Your task to perform on an android device: turn off translation in the chrome app Image 0: 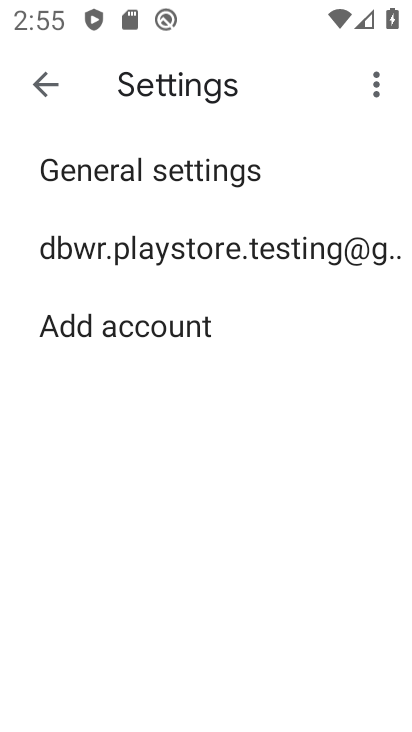
Step 0: press home button
Your task to perform on an android device: turn off translation in the chrome app Image 1: 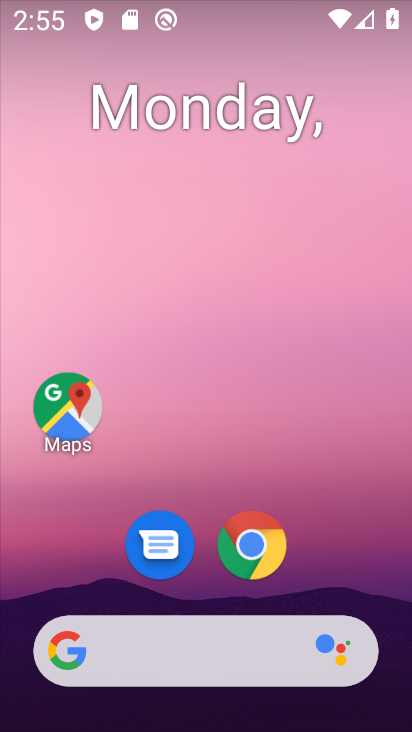
Step 1: click (269, 539)
Your task to perform on an android device: turn off translation in the chrome app Image 2: 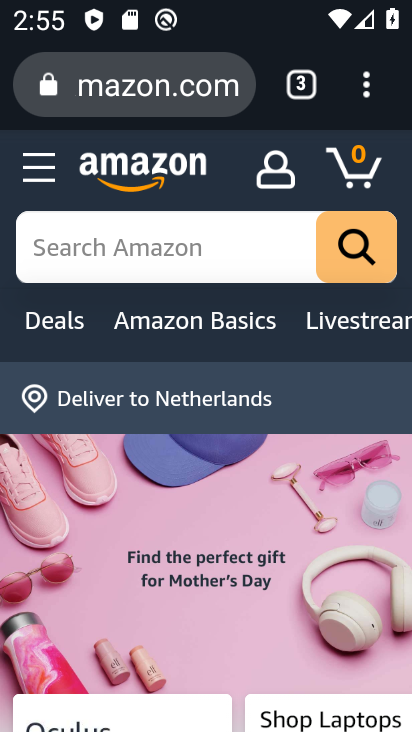
Step 2: drag from (370, 84) to (138, 594)
Your task to perform on an android device: turn off translation in the chrome app Image 3: 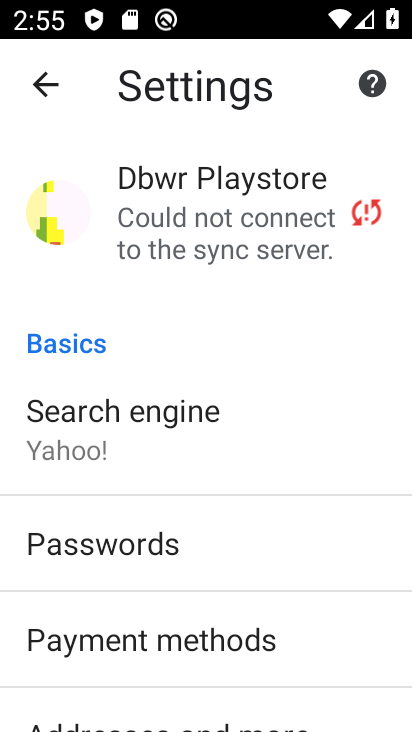
Step 3: drag from (190, 604) to (265, 60)
Your task to perform on an android device: turn off translation in the chrome app Image 4: 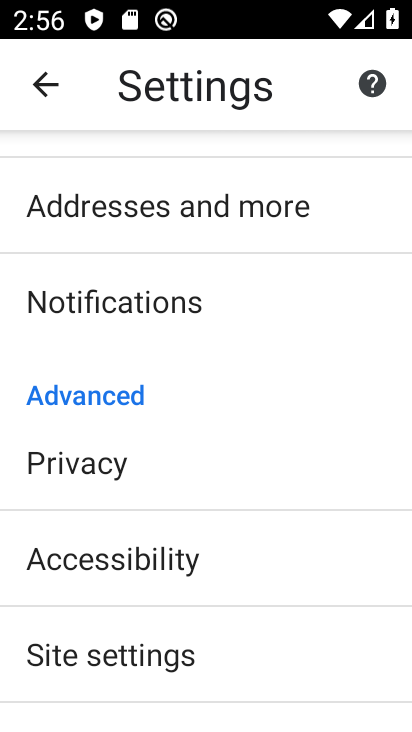
Step 4: drag from (98, 597) to (221, 120)
Your task to perform on an android device: turn off translation in the chrome app Image 5: 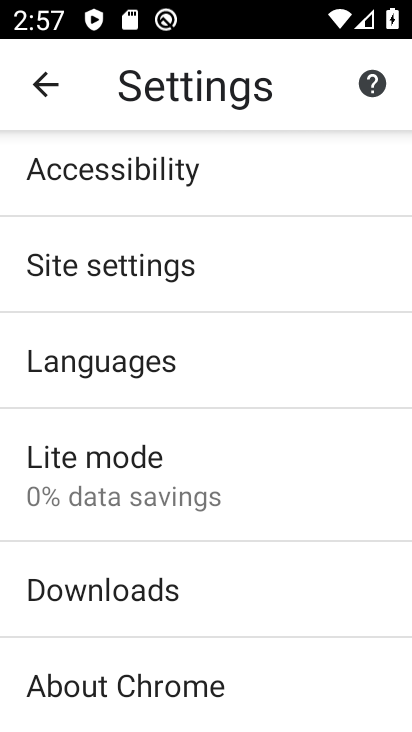
Step 5: click (132, 362)
Your task to perform on an android device: turn off translation in the chrome app Image 6: 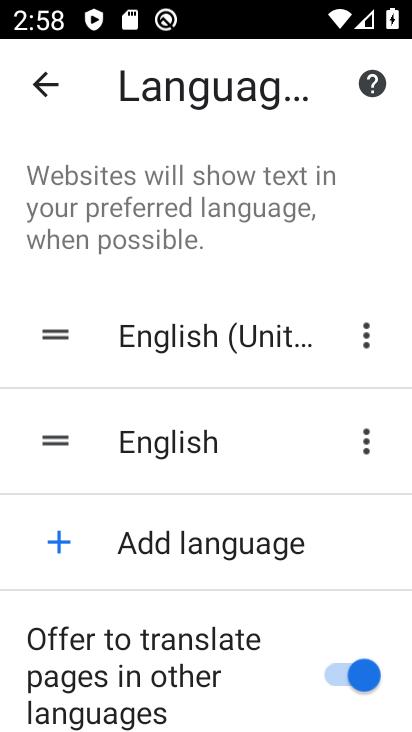
Step 6: click (345, 674)
Your task to perform on an android device: turn off translation in the chrome app Image 7: 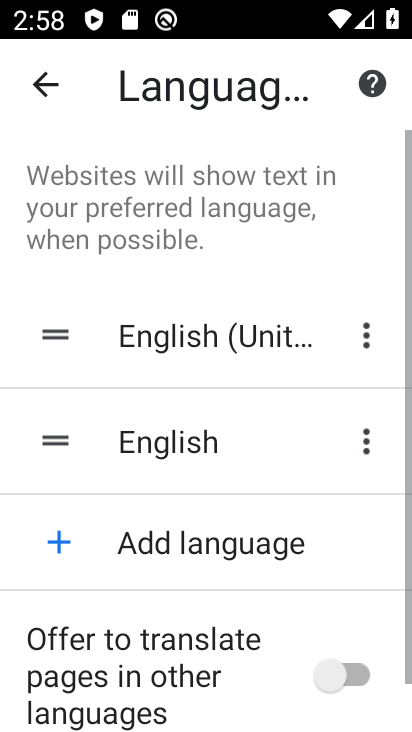
Step 7: task complete